Your task to perform on an android device: Open CNN.com Image 0: 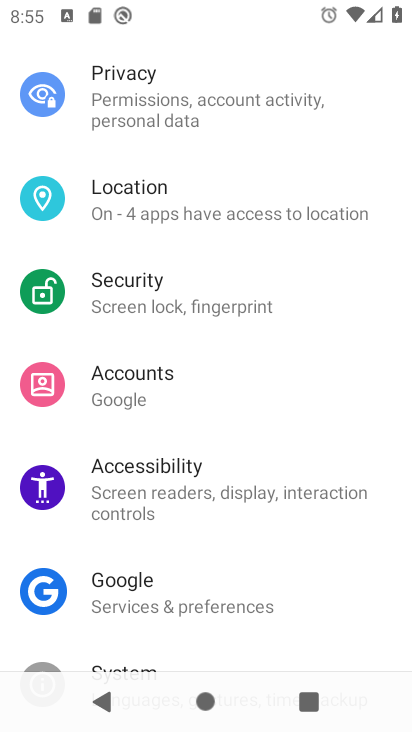
Step 0: press home button
Your task to perform on an android device: Open CNN.com Image 1: 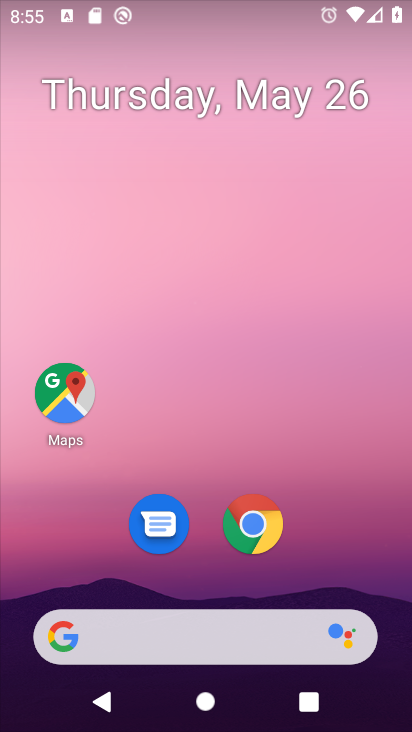
Step 1: click (267, 637)
Your task to perform on an android device: Open CNN.com Image 2: 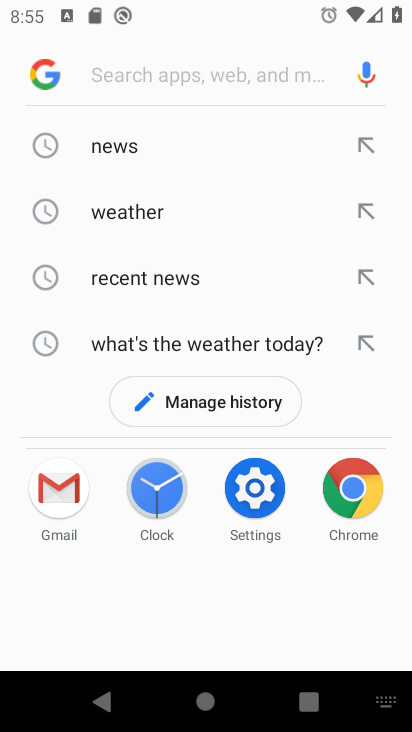
Step 2: type "cnn.com"
Your task to perform on an android device: Open CNN.com Image 3: 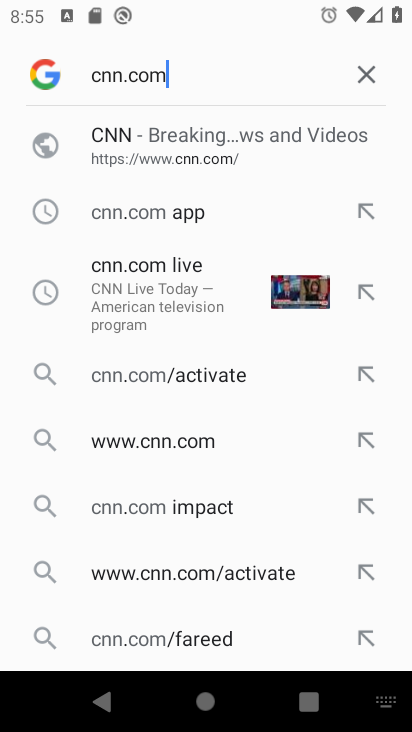
Step 3: click (101, 128)
Your task to perform on an android device: Open CNN.com Image 4: 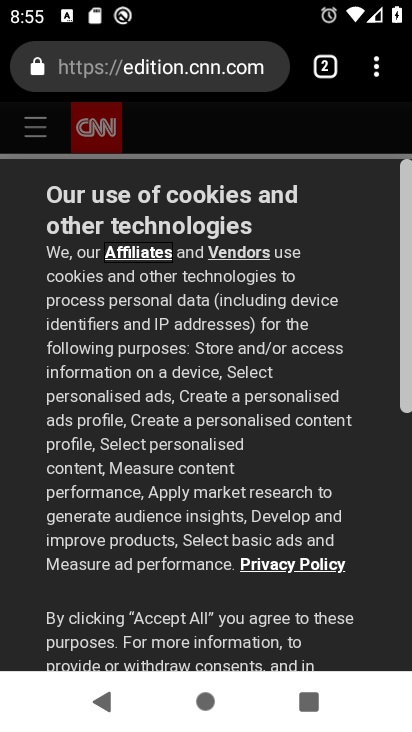
Step 4: drag from (279, 608) to (265, 224)
Your task to perform on an android device: Open CNN.com Image 5: 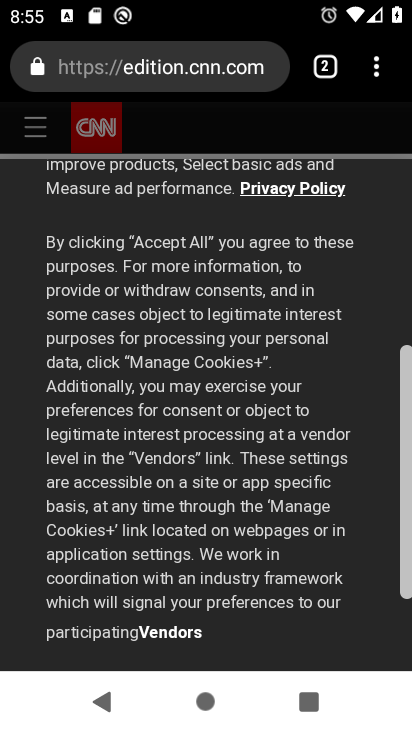
Step 5: drag from (260, 488) to (270, 223)
Your task to perform on an android device: Open CNN.com Image 6: 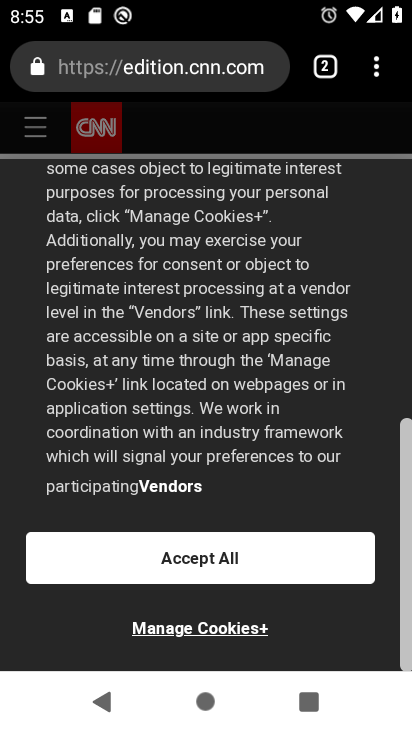
Step 6: click (293, 547)
Your task to perform on an android device: Open CNN.com Image 7: 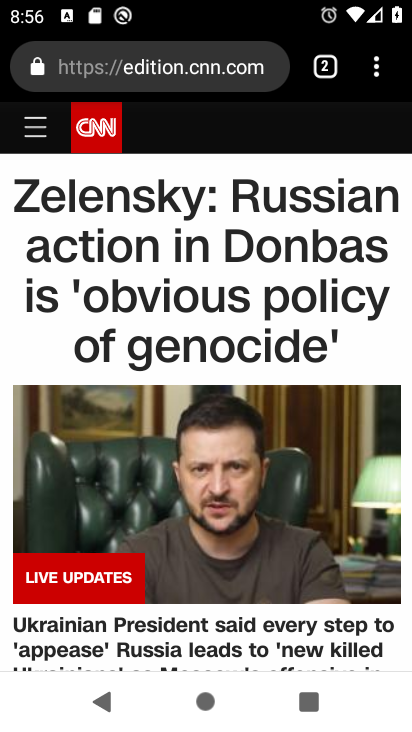
Step 7: task complete